Your task to perform on an android device: Open Yahoo.com Image 0: 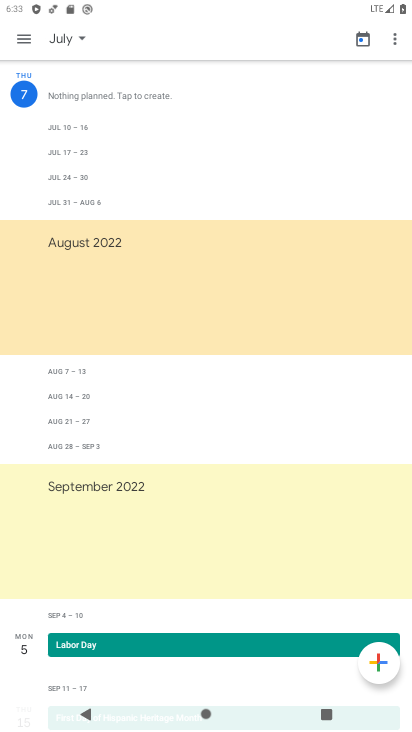
Step 0: press home button
Your task to perform on an android device: Open Yahoo.com Image 1: 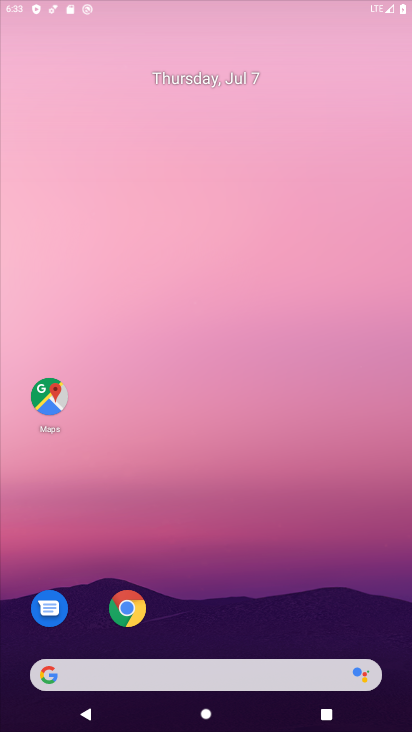
Step 1: drag from (199, 611) to (149, 62)
Your task to perform on an android device: Open Yahoo.com Image 2: 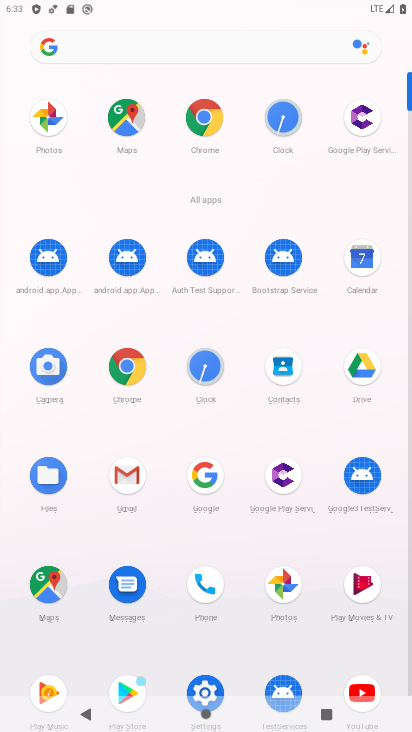
Step 2: click (229, 127)
Your task to perform on an android device: Open Yahoo.com Image 3: 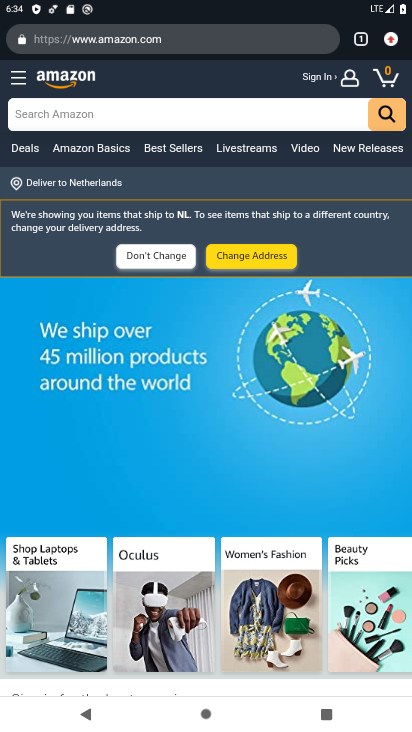
Step 3: click (232, 49)
Your task to perform on an android device: Open Yahoo.com Image 4: 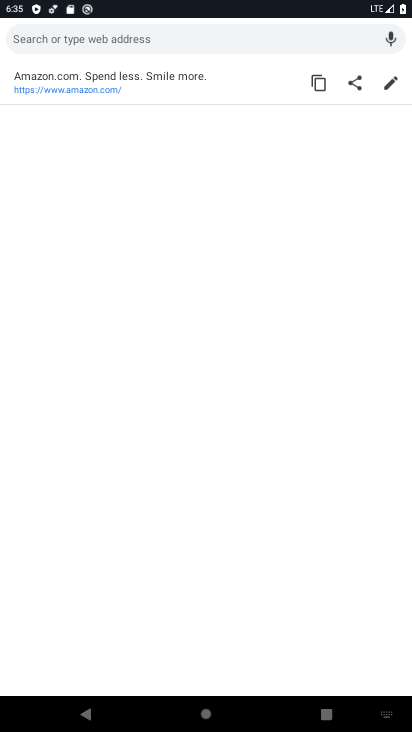
Step 4: type "Yahoo.com"
Your task to perform on an android device: Open Yahoo.com Image 5: 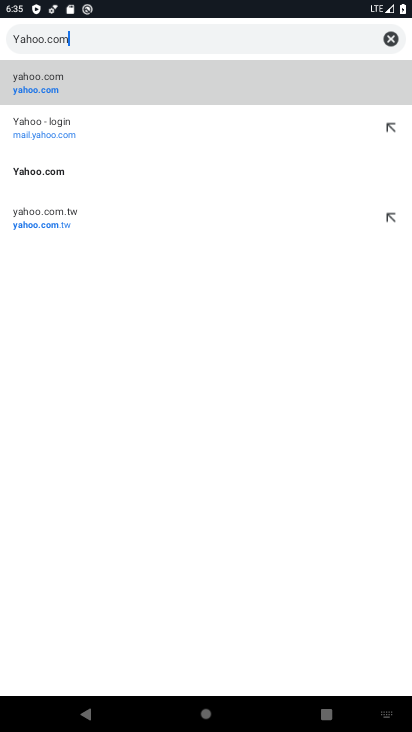
Step 5: type ""
Your task to perform on an android device: Open Yahoo.com Image 6: 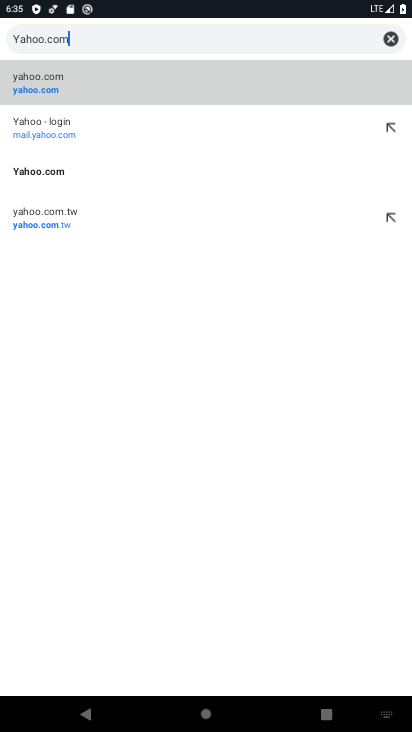
Step 6: click (66, 76)
Your task to perform on an android device: Open Yahoo.com Image 7: 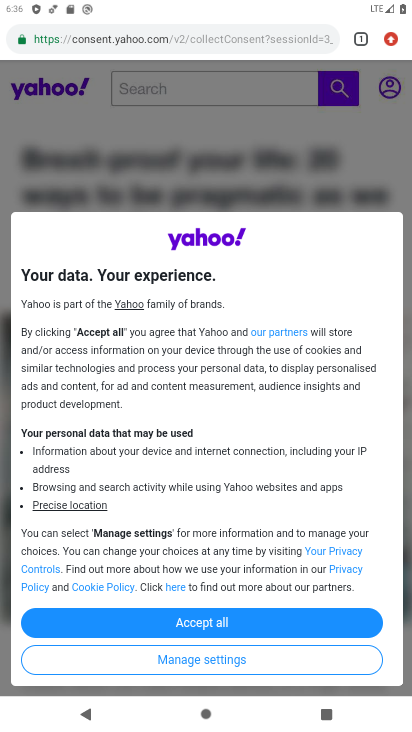
Step 7: task complete